Your task to perform on an android device: Do I have any events this weekend? Image 0: 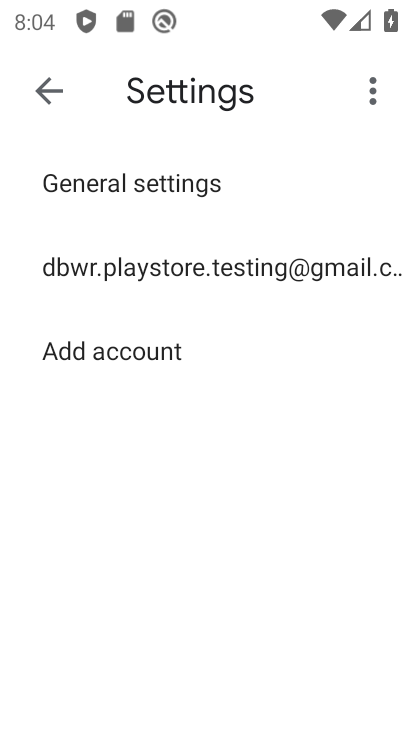
Step 0: press home button
Your task to perform on an android device: Do I have any events this weekend? Image 1: 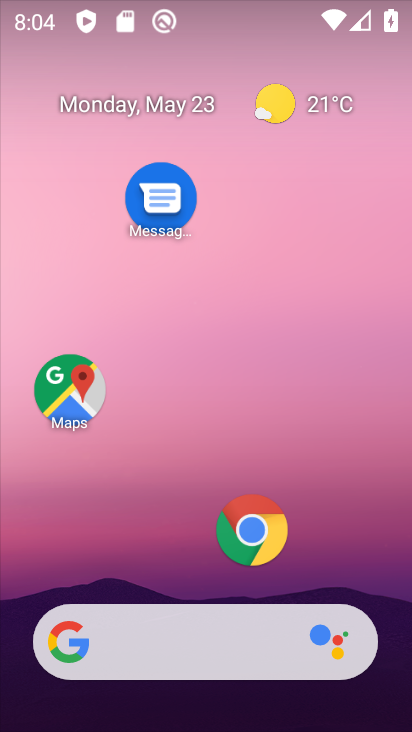
Step 1: click (176, 111)
Your task to perform on an android device: Do I have any events this weekend? Image 2: 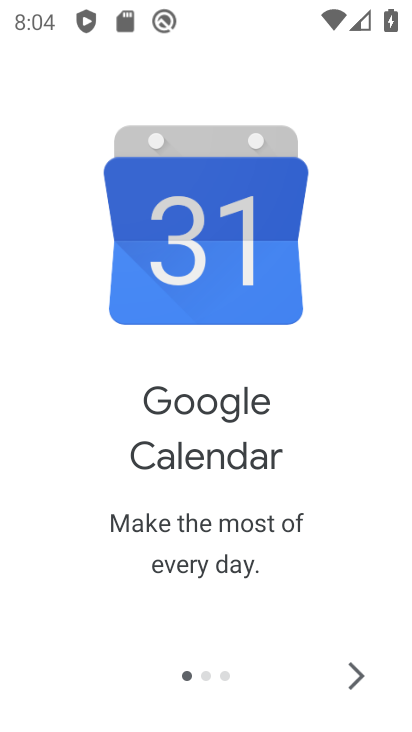
Step 2: click (366, 686)
Your task to perform on an android device: Do I have any events this weekend? Image 3: 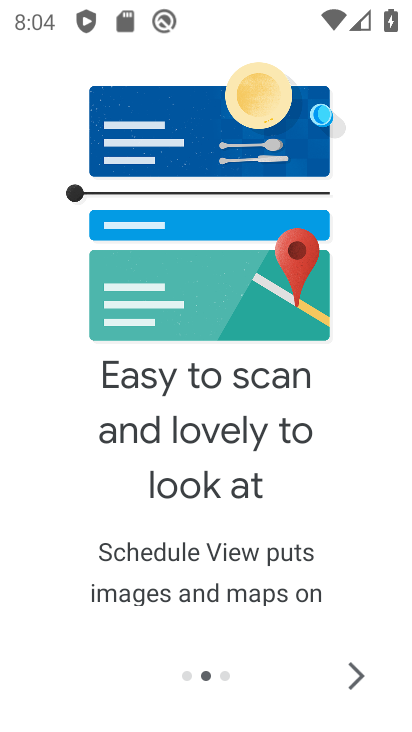
Step 3: click (366, 686)
Your task to perform on an android device: Do I have any events this weekend? Image 4: 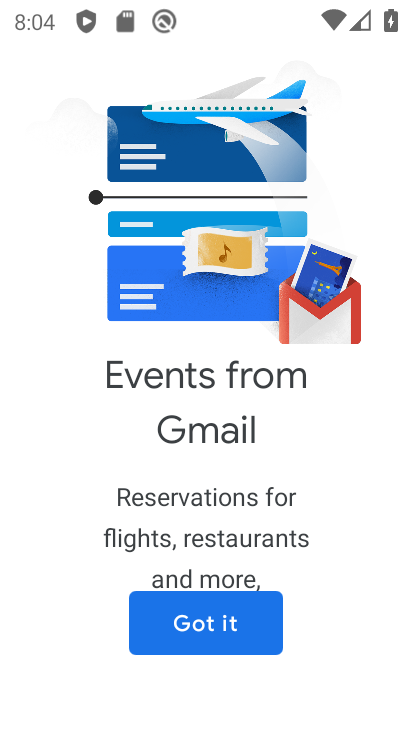
Step 4: click (181, 620)
Your task to perform on an android device: Do I have any events this weekend? Image 5: 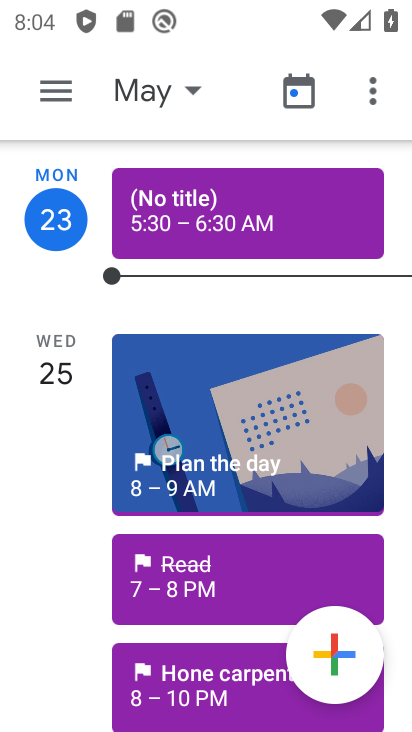
Step 5: click (124, 85)
Your task to perform on an android device: Do I have any events this weekend? Image 6: 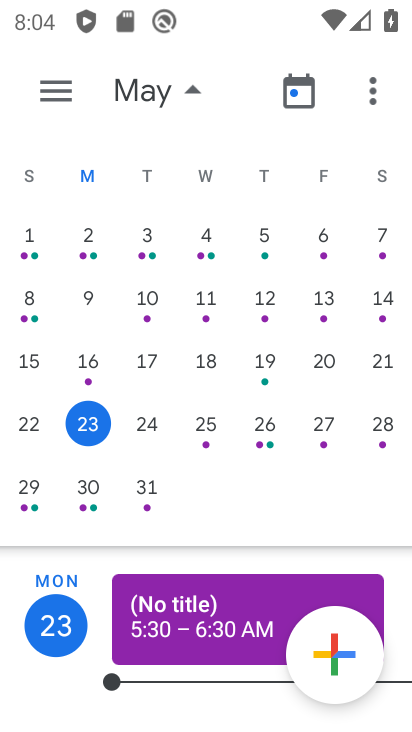
Step 6: click (377, 445)
Your task to perform on an android device: Do I have any events this weekend? Image 7: 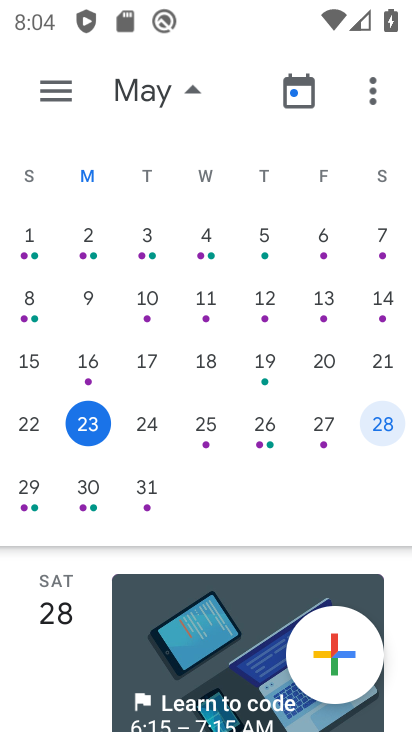
Step 7: task complete